Your task to perform on an android device: check android version Image 0: 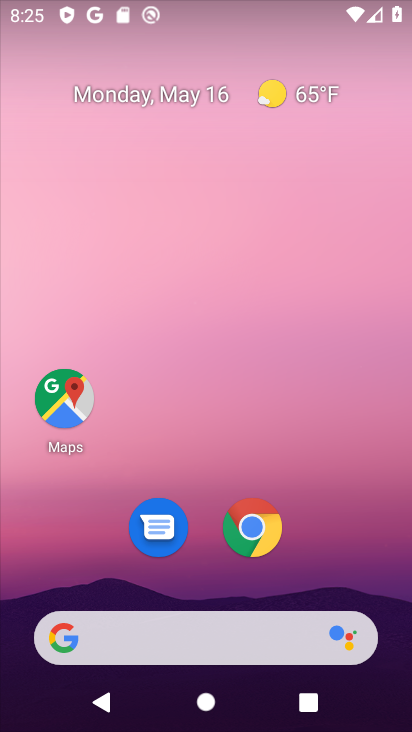
Step 0: drag from (315, 502) to (291, 218)
Your task to perform on an android device: check android version Image 1: 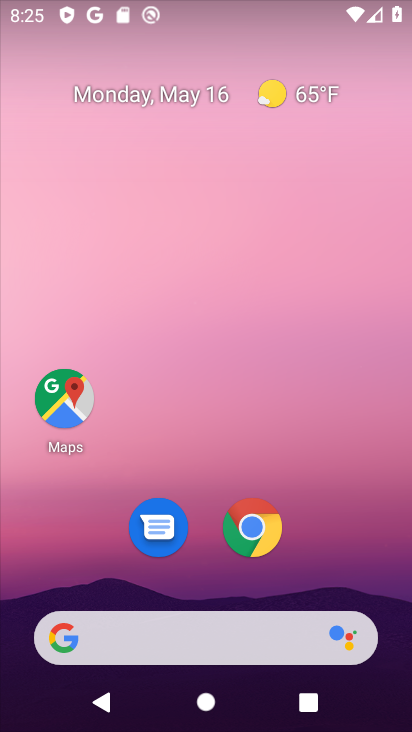
Step 1: drag from (198, 585) to (211, 209)
Your task to perform on an android device: check android version Image 2: 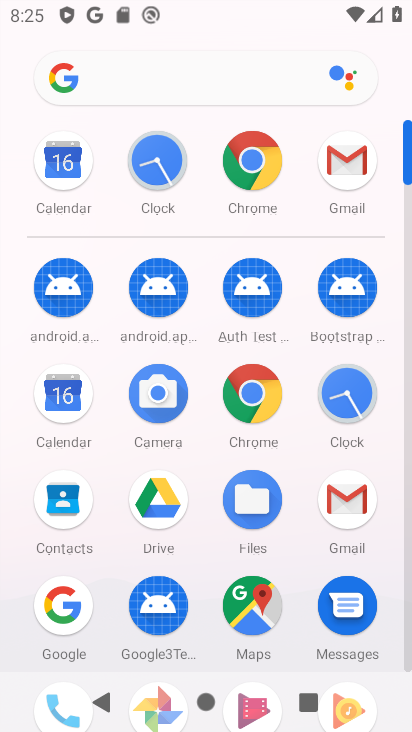
Step 2: drag from (227, 614) to (232, 243)
Your task to perform on an android device: check android version Image 3: 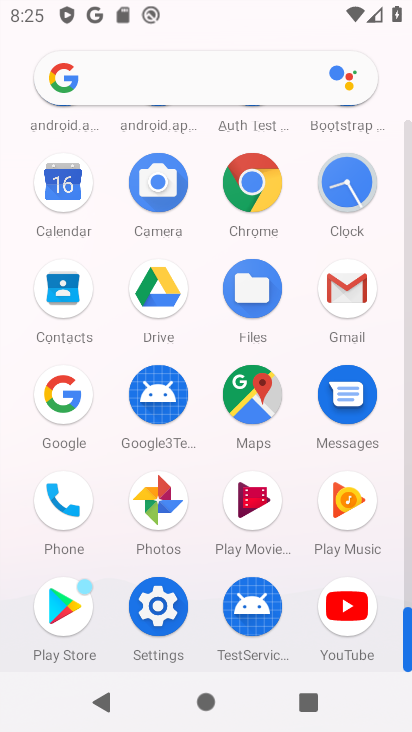
Step 3: click (159, 602)
Your task to perform on an android device: check android version Image 4: 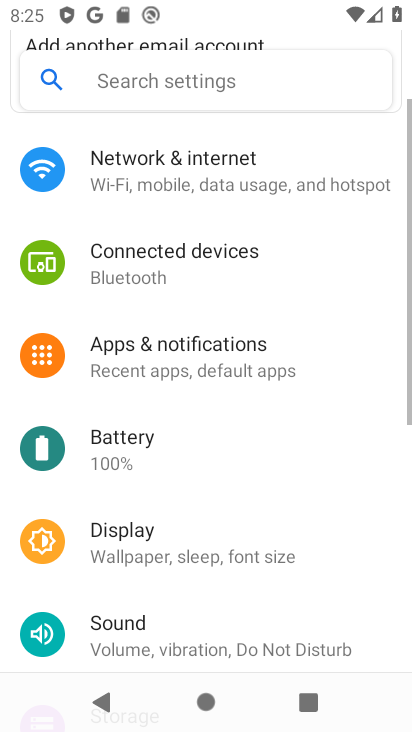
Step 4: drag from (161, 605) to (185, 185)
Your task to perform on an android device: check android version Image 5: 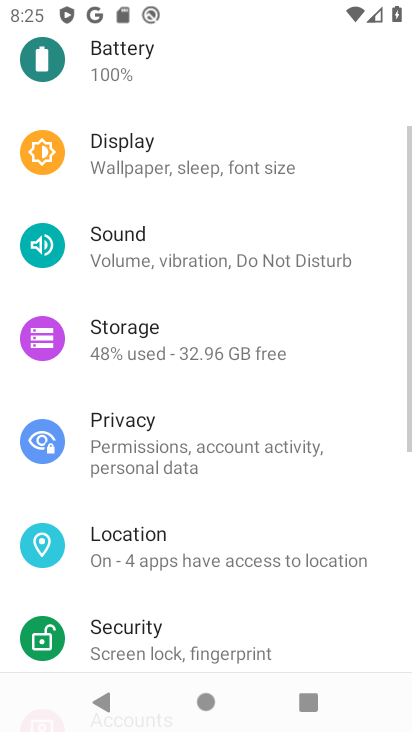
Step 5: drag from (194, 598) to (240, 207)
Your task to perform on an android device: check android version Image 6: 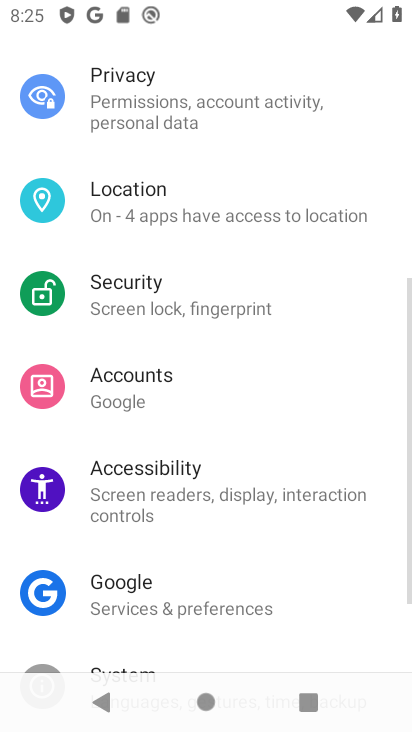
Step 6: drag from (171, 650) to (249, 280)
Your task to perform on an android device: check android version Image 7: 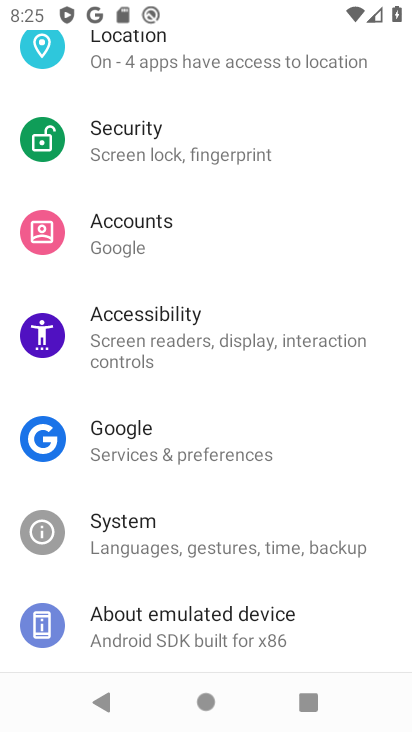
Step 7: click (168, 632)
Your task to perform on an android device: check android version Image 8: 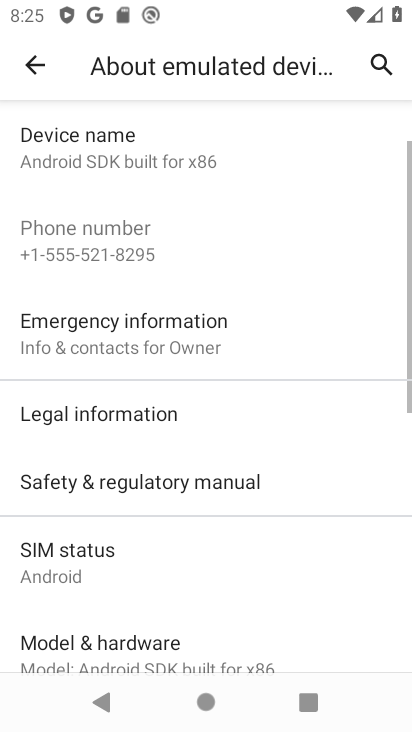
Step 8: drag from (205, 636) to (295, 65)
Your task to perform on an android device: check android version Image 9: 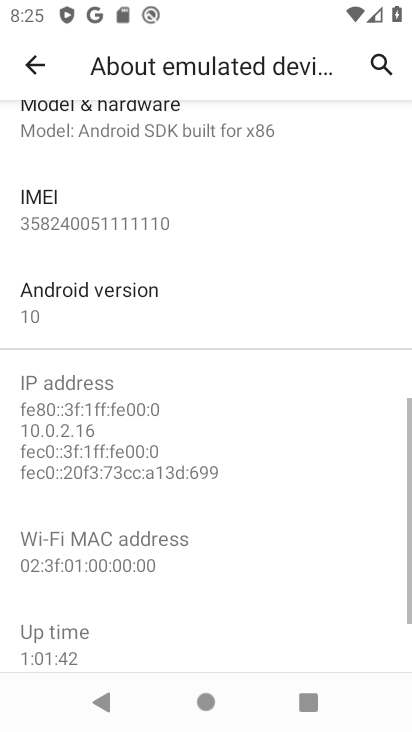
Step 9: click (108, 316)
Your task to perform on an android device: check android version Image 10: 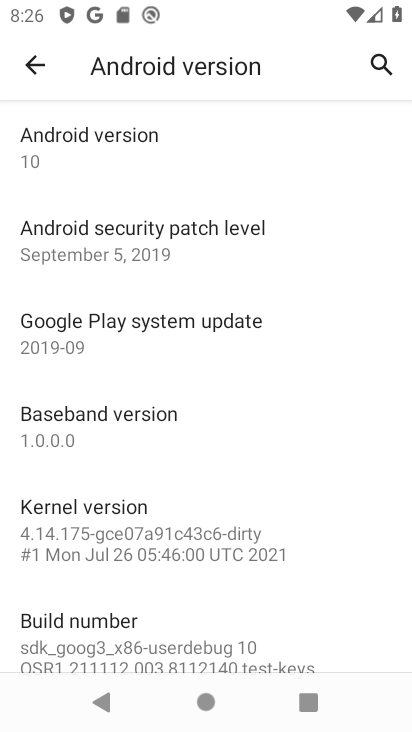
Step 10: task complete